Your task to perform on an android device: change text size in settings app Image 0: 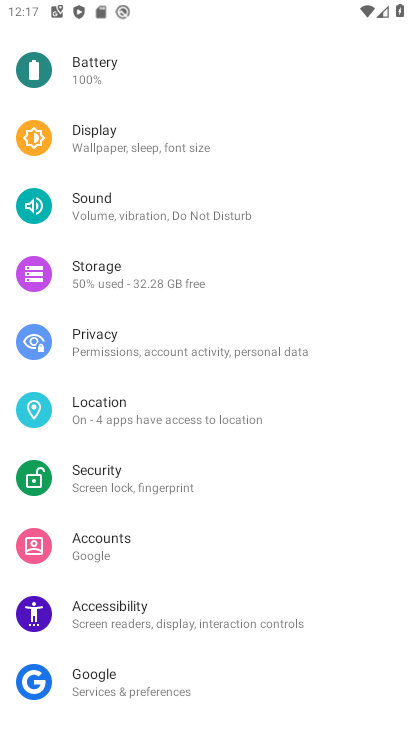
Step 0: press home button
Your task to perform on an android device: change text size in settings app Image 1: 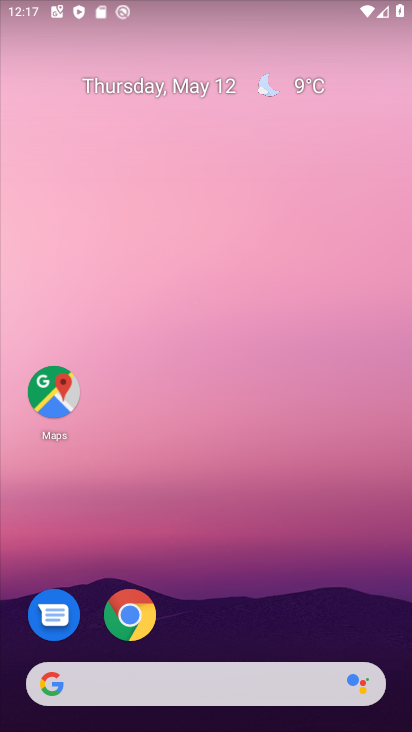
Step 1: drag from (244, 528) to (223, 25)
Your task to perform on an android device: change text size in settings app Image 2: 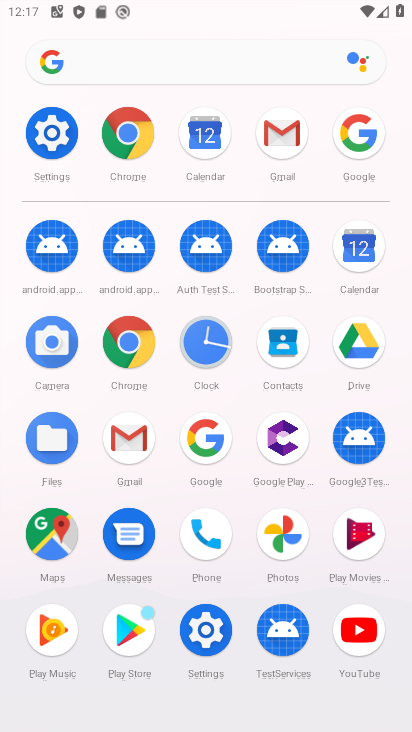
Step 2: click (50, 127)
Your task to perform on an android device: change text size in settings app Image 3: 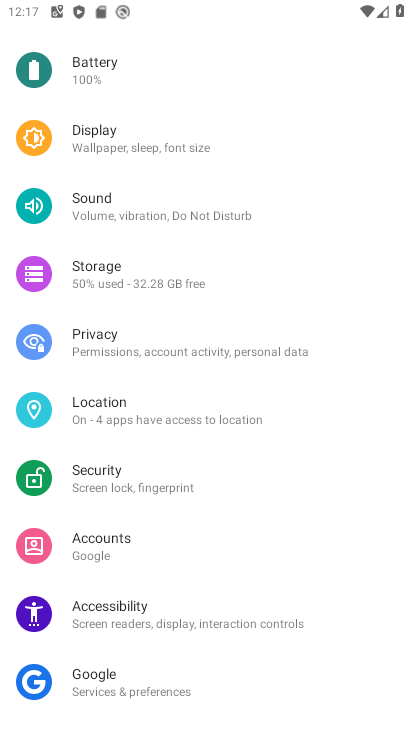
Step 3: drag from (192, 649) to (289, 132)
Your task to perform on an android device: change text size in settings app Image 4: 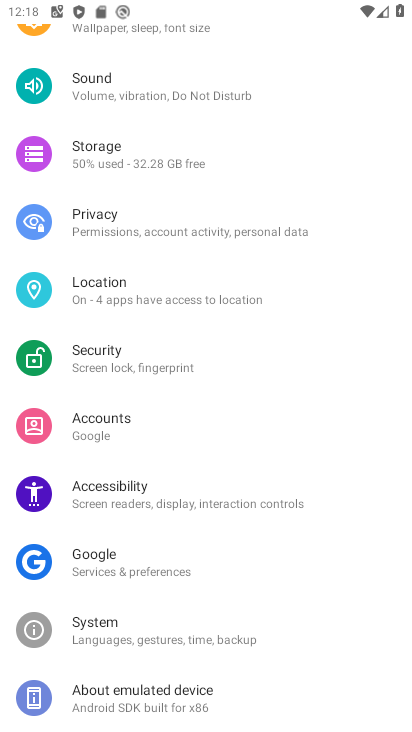
Step 4: drag from (152, 127) to (175, 487)
Your task to perform on an android device: change text size in settings app Image 5: 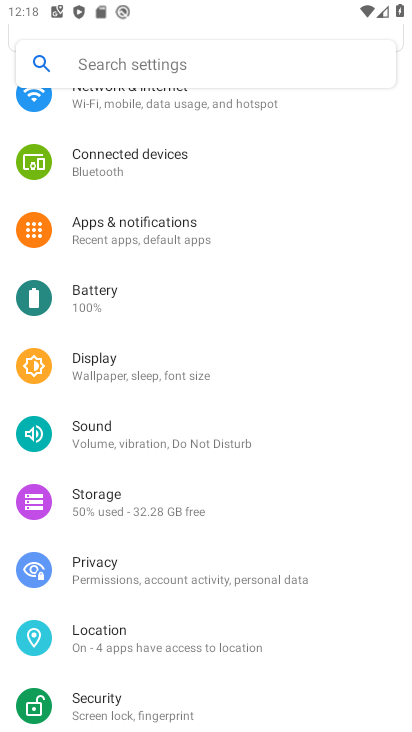
Step 5: click (141, 365)
Your task to perform on an android device: change text size in settings app Image 6: 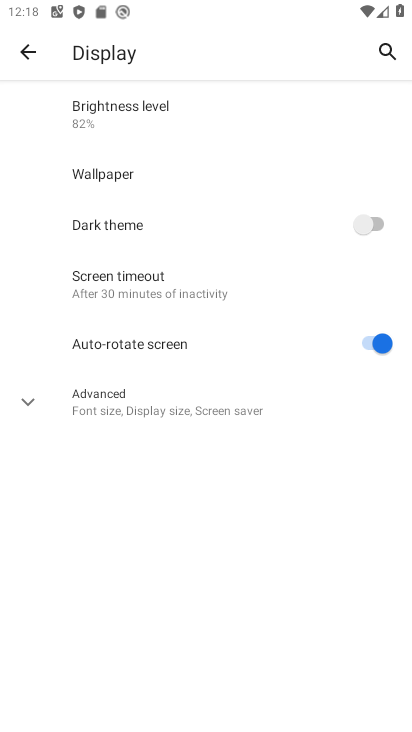
Step 6: click (154, 402)
Your task to perform on an android device: change text size in settings app Image 7: 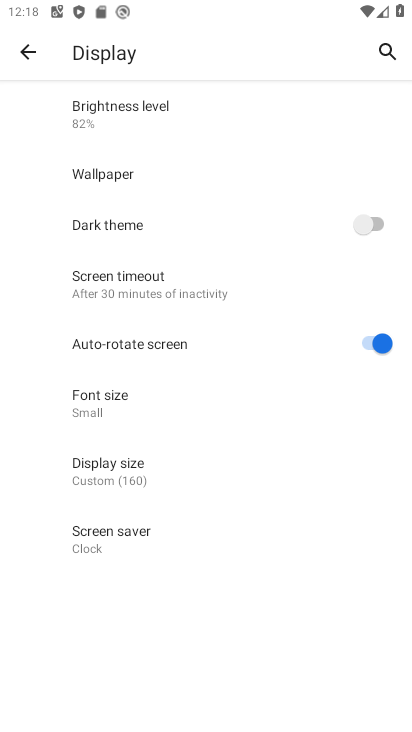
Step 7: click (169, 399)
Your task to perform on an android device: change text size in settings app Image 8: 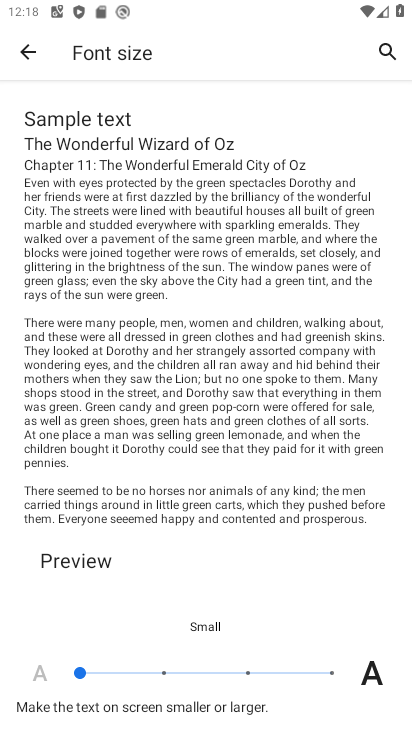
Step 8: click (141, 676)
Your task to perform on an android device: change text size in settings app Image 9: 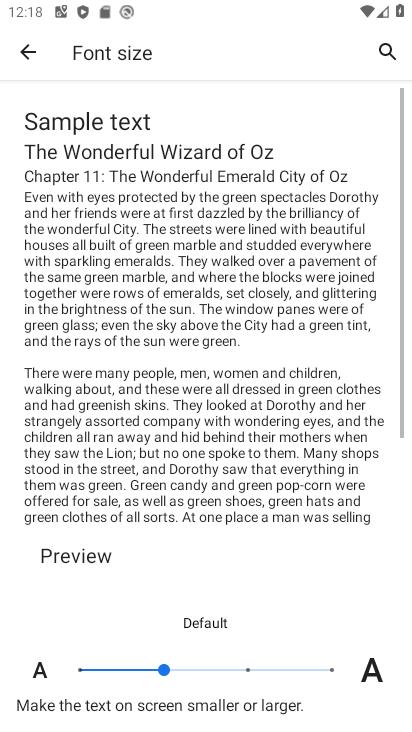
Step 9: task complete